Your task to perform on an android device: open app "Life360: Find Family & Friends" (install if not already installed) and go to login screen Image 0: 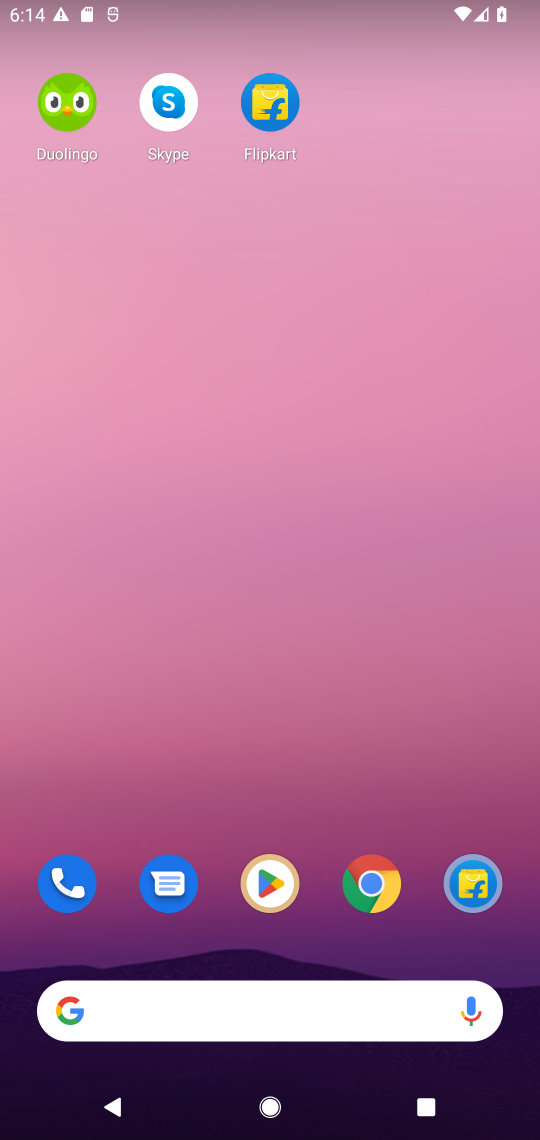
Step 0: click (251, 236)
Your task to perform on an android device: open app "Life360: Find Family & Friends" (install if not already installed) and go to login screen Image 1: 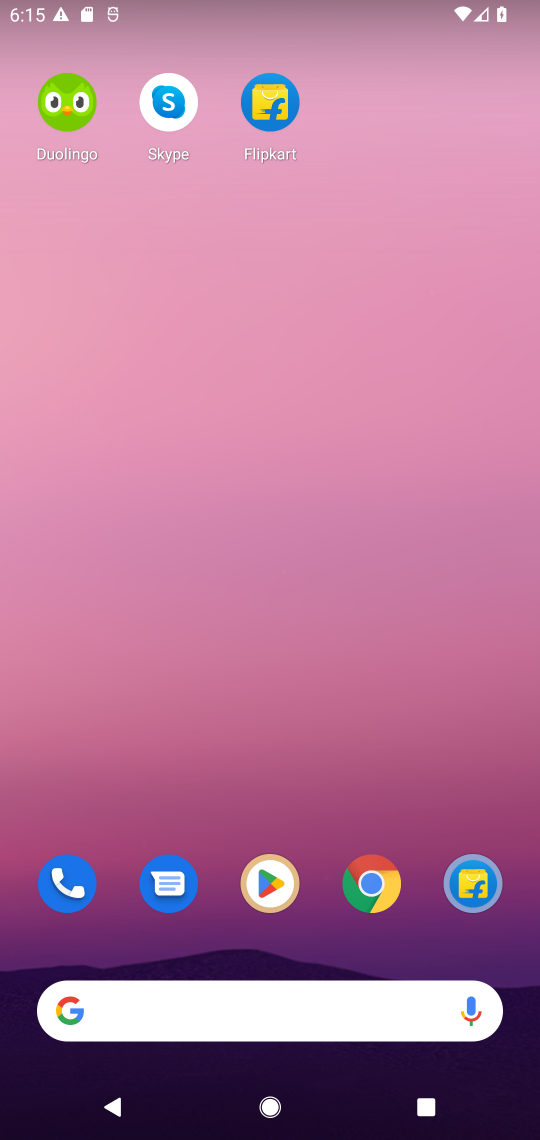
Step 1: click (271, 882)
Your task to perform on an android device: open app "Life360: Find Family & Friends" (install if not already installed) and go to login screen Image 2: 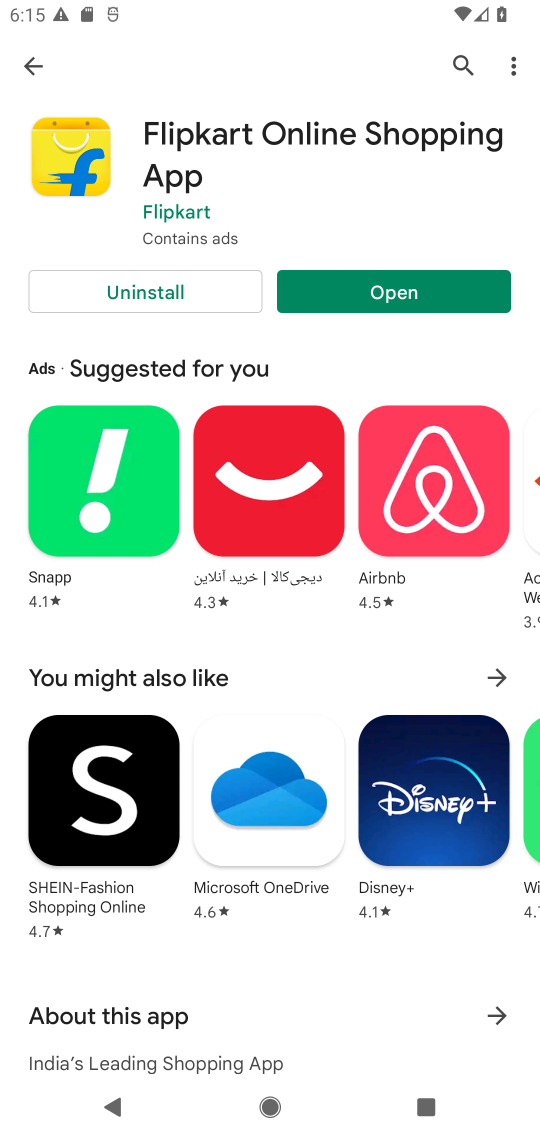
Step 2: click (462, 54)
Your task to perform on an android device: open app "Life360: Find Family & Friends" (install if not already installed) and go to login screen Image 3: 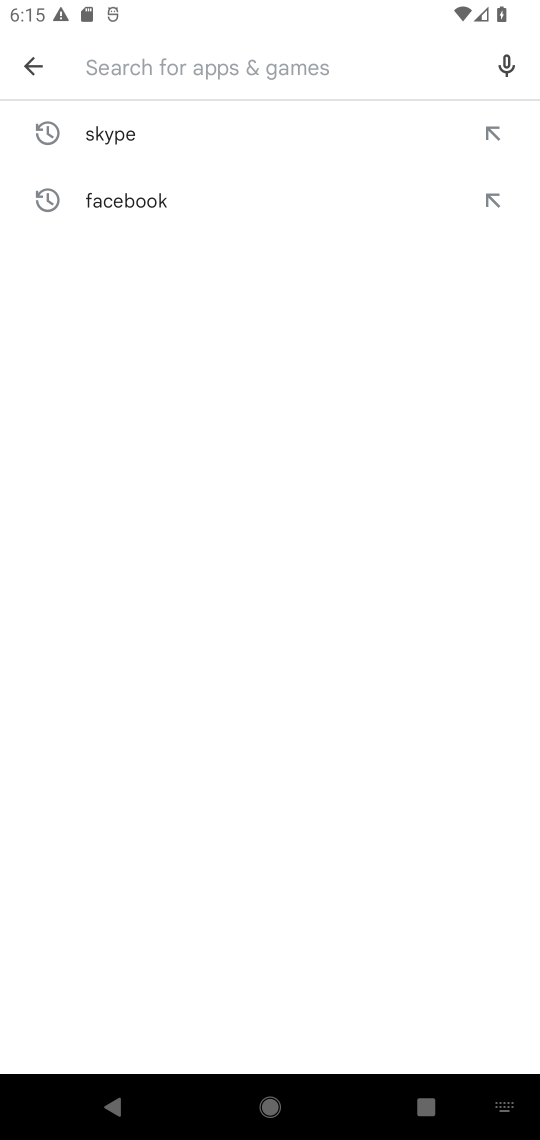
Step 3: type "Life360: Find Family & Friend"
Your task to perform on an android device: open app "Life360: Find Family & Friends" (install if not already installed) and go to login screen Image 4: 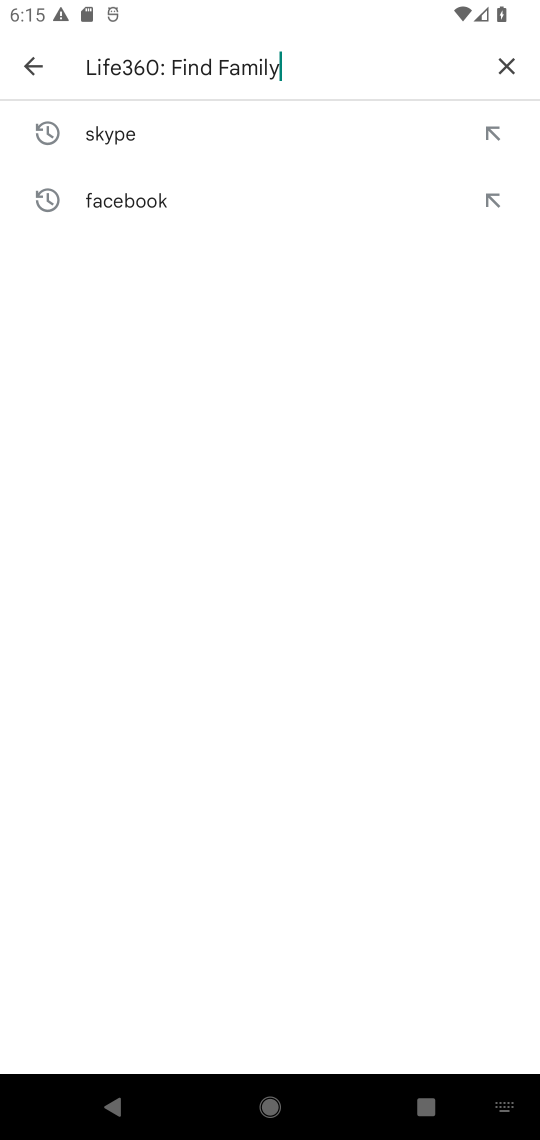
Step 4: type ""
Your task to perform on an android device: open app "Life360: Find Family & Friends" (install if not already installed) and go to login screen Image 5: 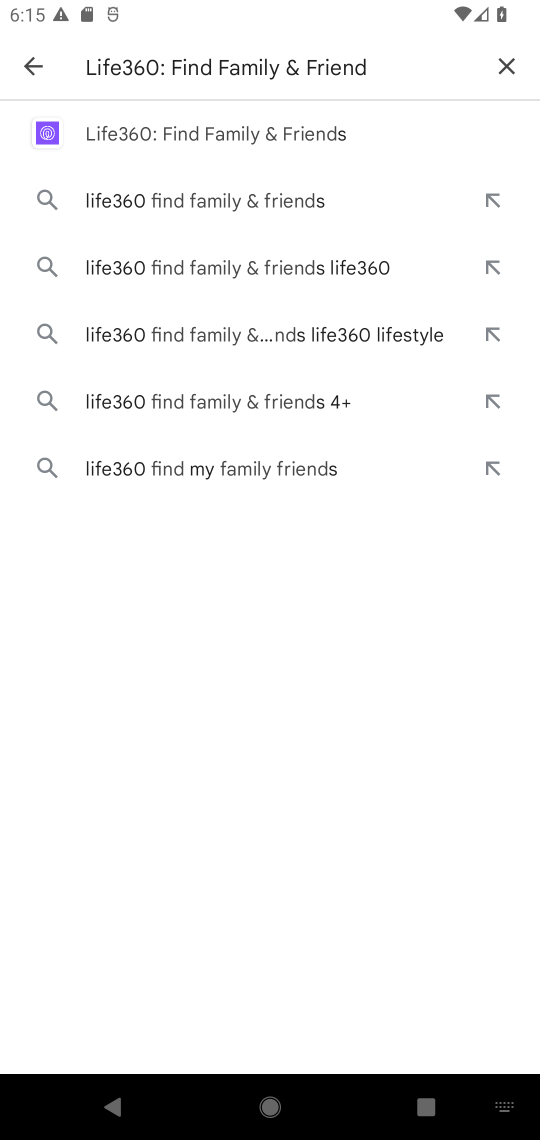
Step 5: click (234, 133)
Your task to perform on an android device: open app "Life360: Find Family & Friends" (install if not already installed) and go to login screen Image 6: 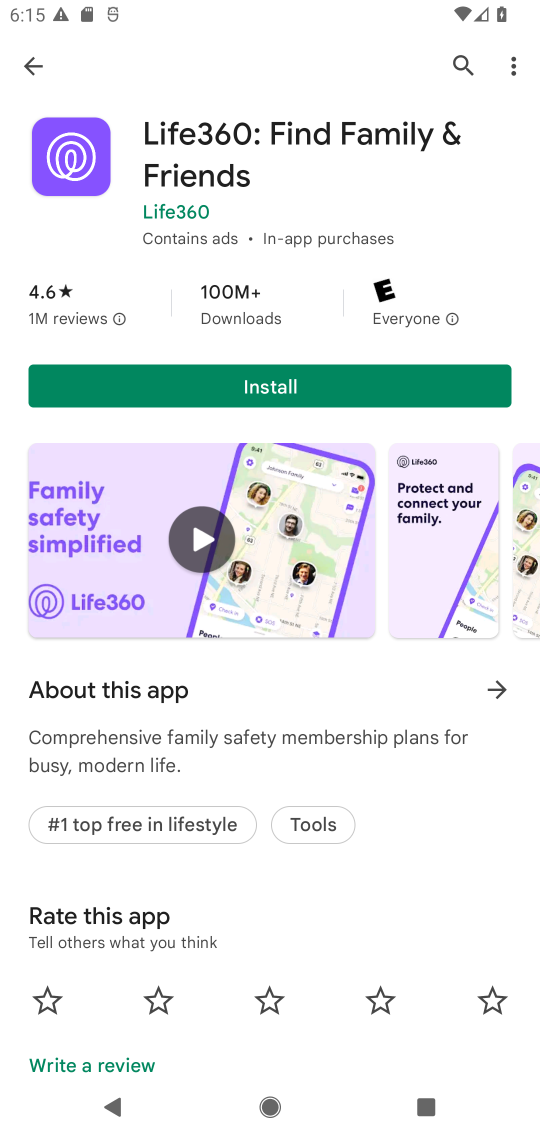
Step 6: click (277, 390)
Your task to perform on an android device: open app "Life360: Find Family & Friends" (install if not already installed) and go to login screen Image 7: 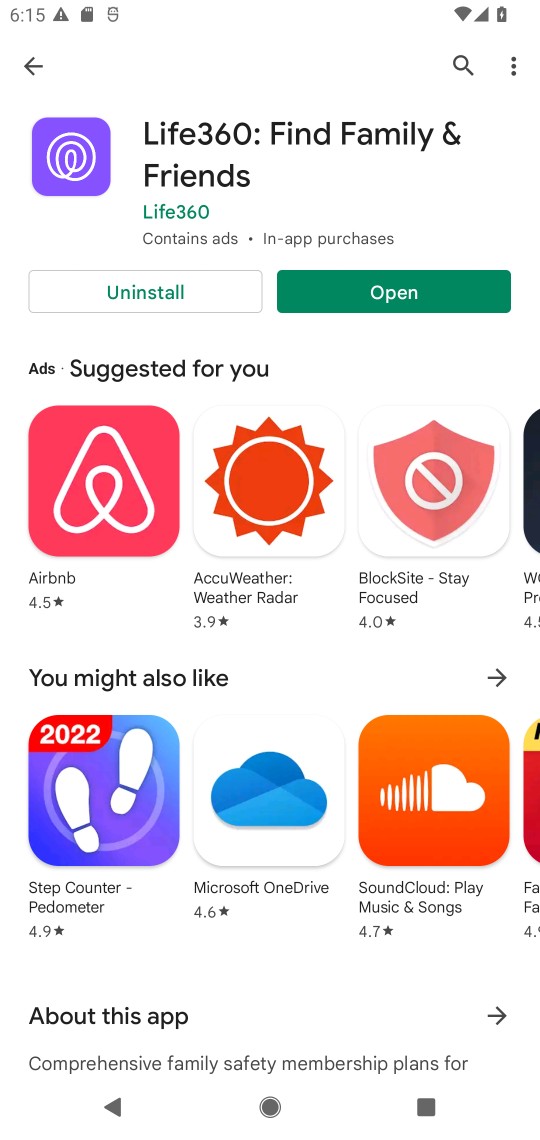
Step 7: click (379, 296)
Your task to perform on an android device: open app "Life360: Find Family & Friends" (install if not already installed) and go to login screen Image 8: 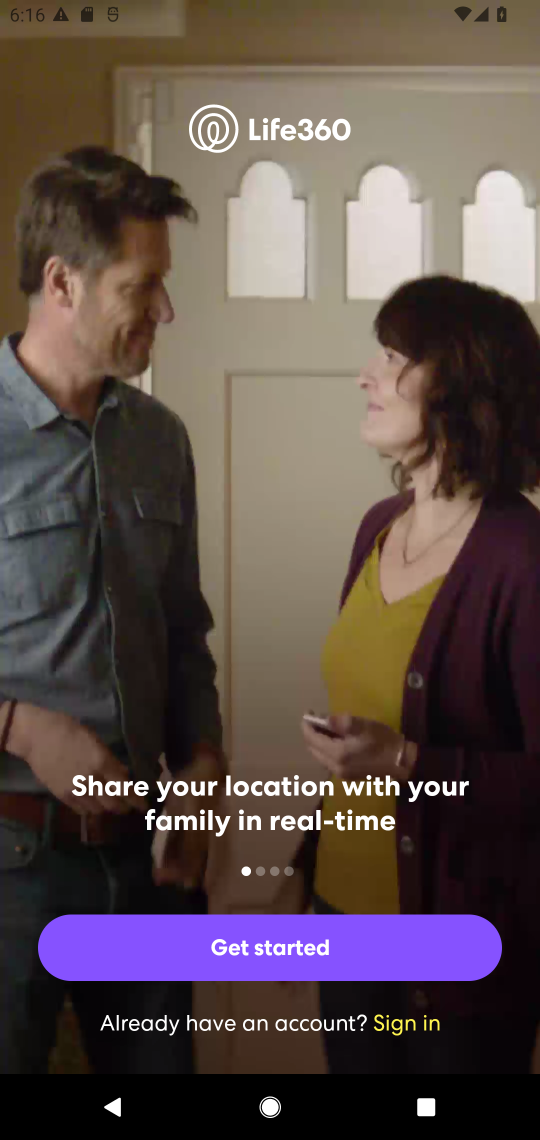
Step 8: click (416, 1029)
Your task to perform on an android device: open app "Life360: Find Family & Friends" (install if not already installed) and go to login screen Image 9: 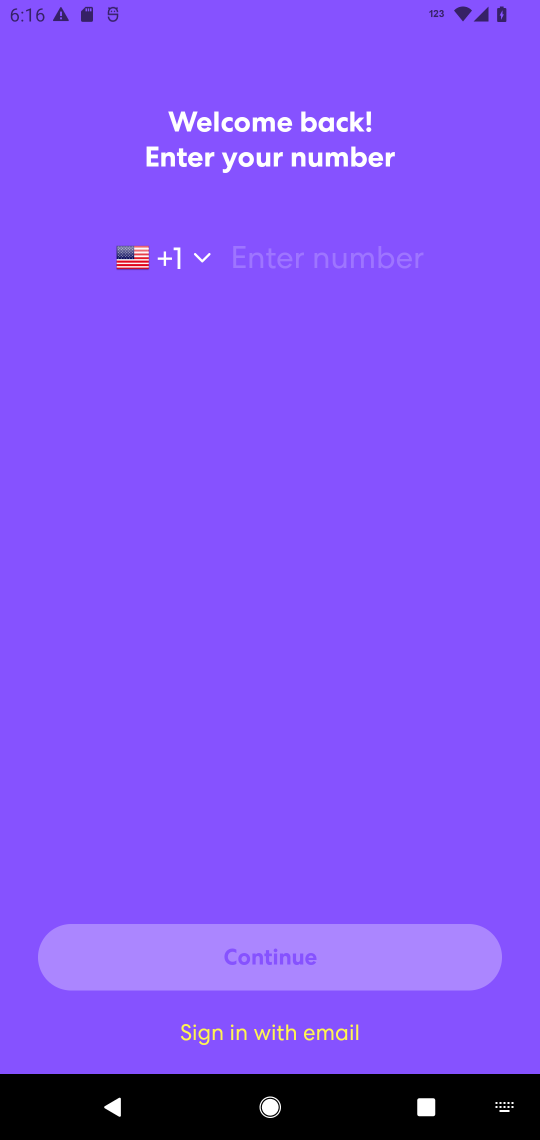
Step 9: click (271, 1034)
Your task to perform on an android device: open app "Life360: Find Family & Friends" (install if not already installed) and go to login screen Image 10: 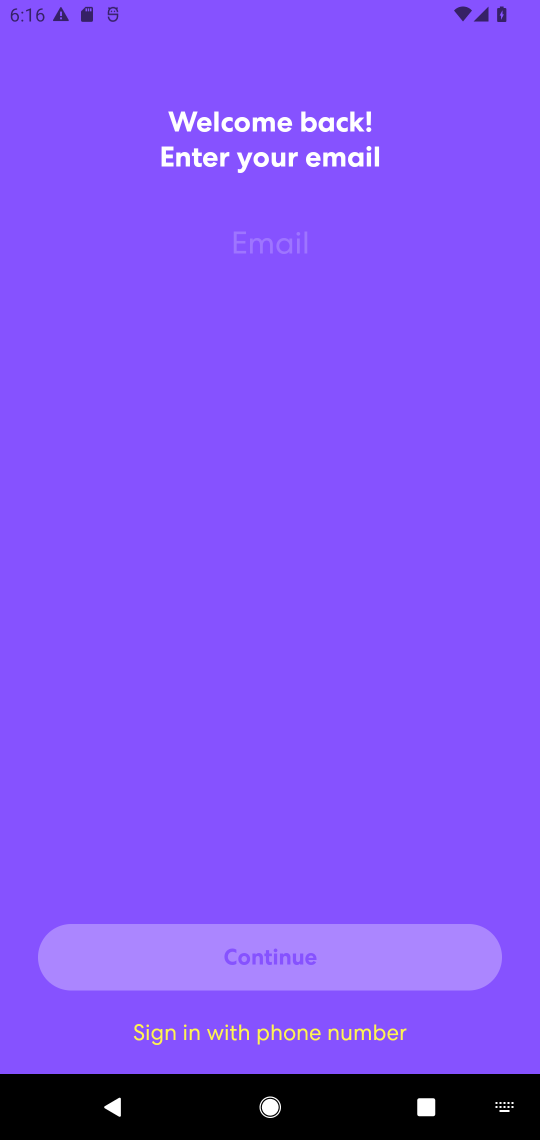
Step 10: task complete